Your task to perform on an android device: Clear all items from cart on walmart. Add razer blade to the cart on walmart Image 0: 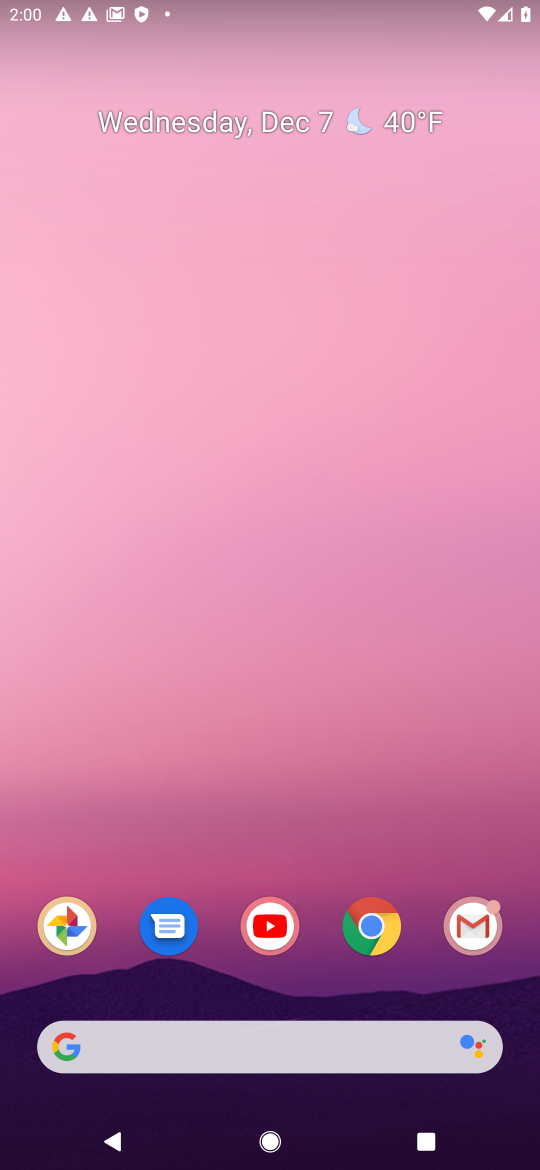
Step 0: drag from (228, 967) to (222, 455)
Your task to perform on an android device: Clear all items from cart on walmart. Add razer blade to the cart on walmart Image 1: 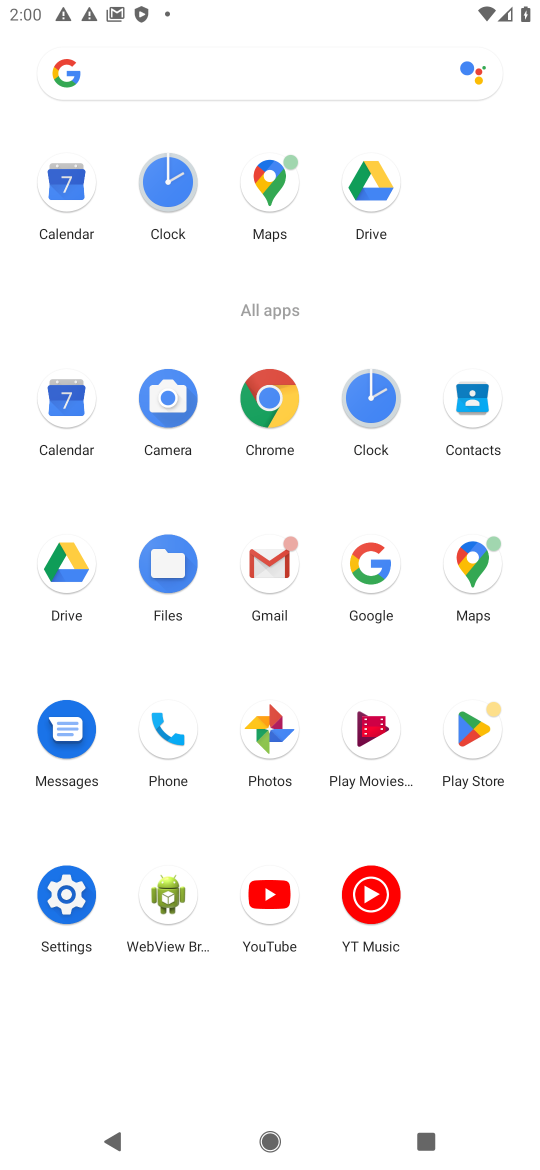
Step 1: click (396, 543)
Your task to perform on an android device: Clear all items from cart on walmart. Add razer blade to the cart on walmart Image 2: 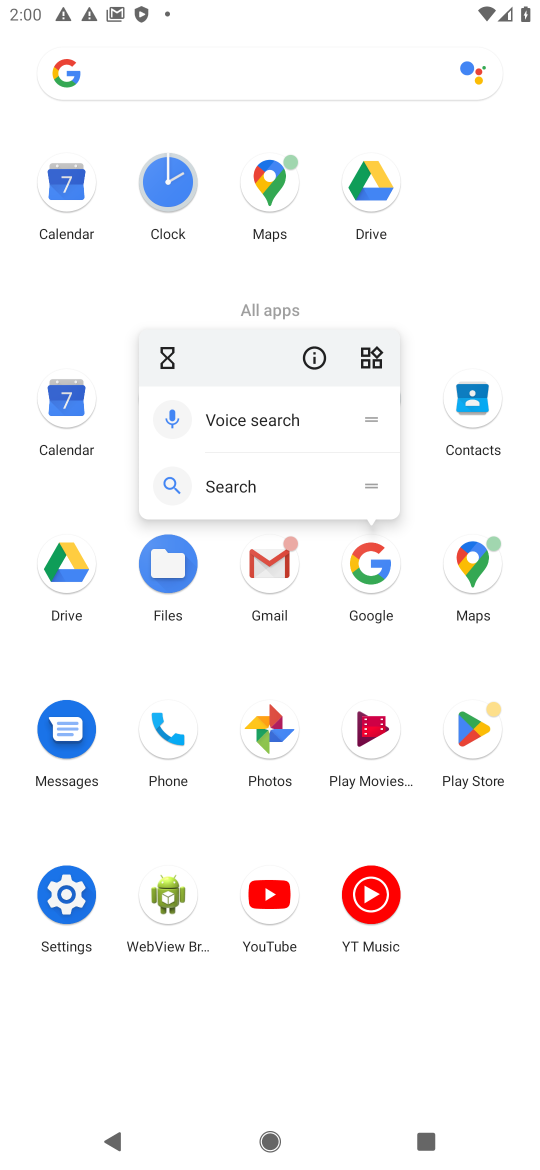
Step 2: click (382, 561)
Your task to perform on an android device: Clear all items from cart on walmart. Add razer blade to the cart on walmart Image 3: 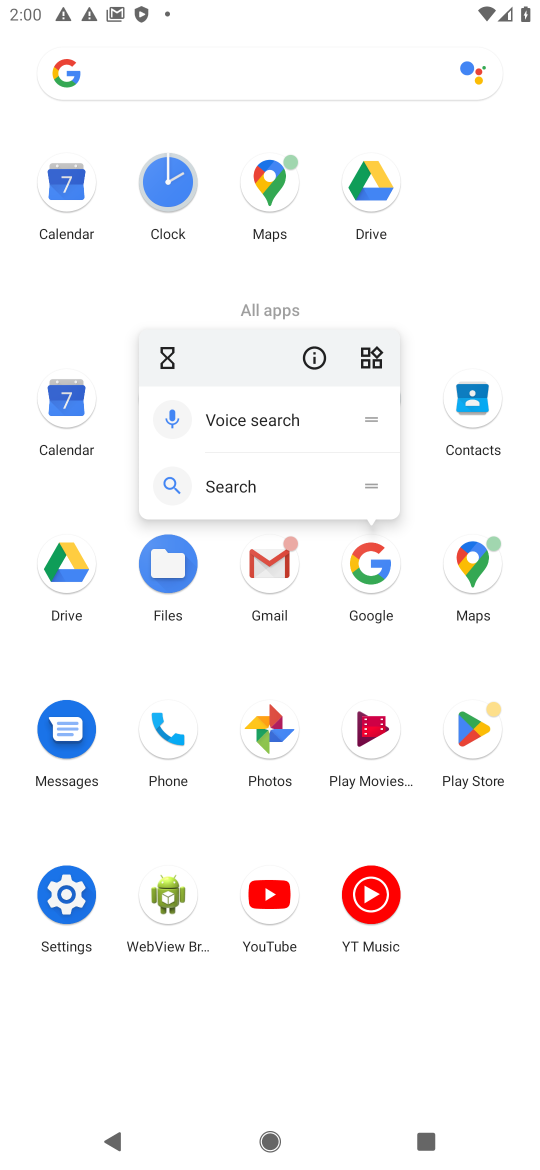
Step 3: click (370, 564)
Your task to perform on an android device: Clear all items from cart on walmart. Add razer blade to the cart on walmart Image 4: 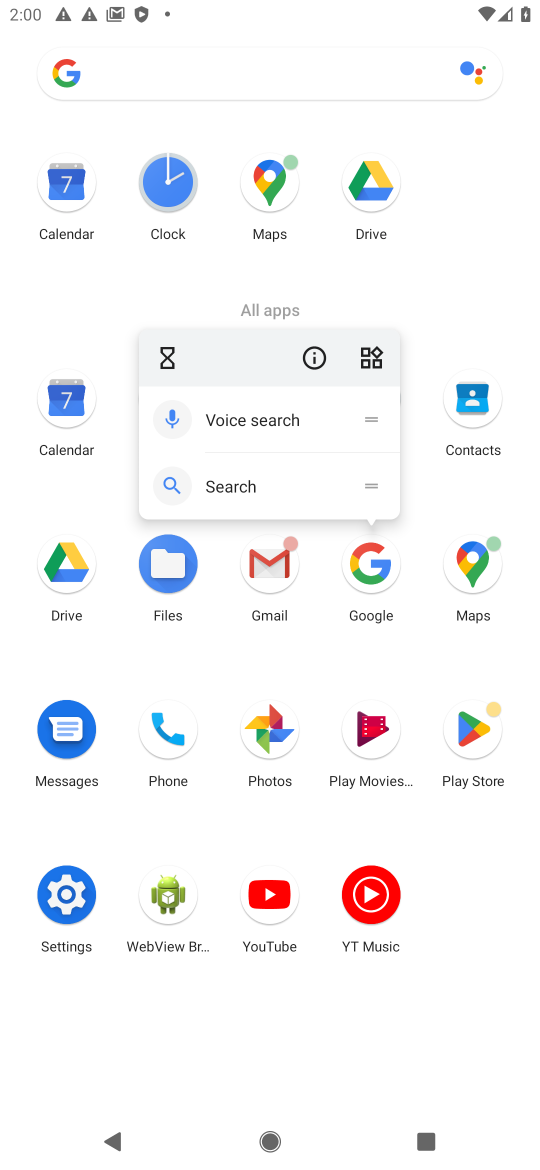
Step 4: click (363, 562)
Your task to perform on an android device: Clear all items from cart on walmart. Add razer blade to the cart on walmart Image 5: 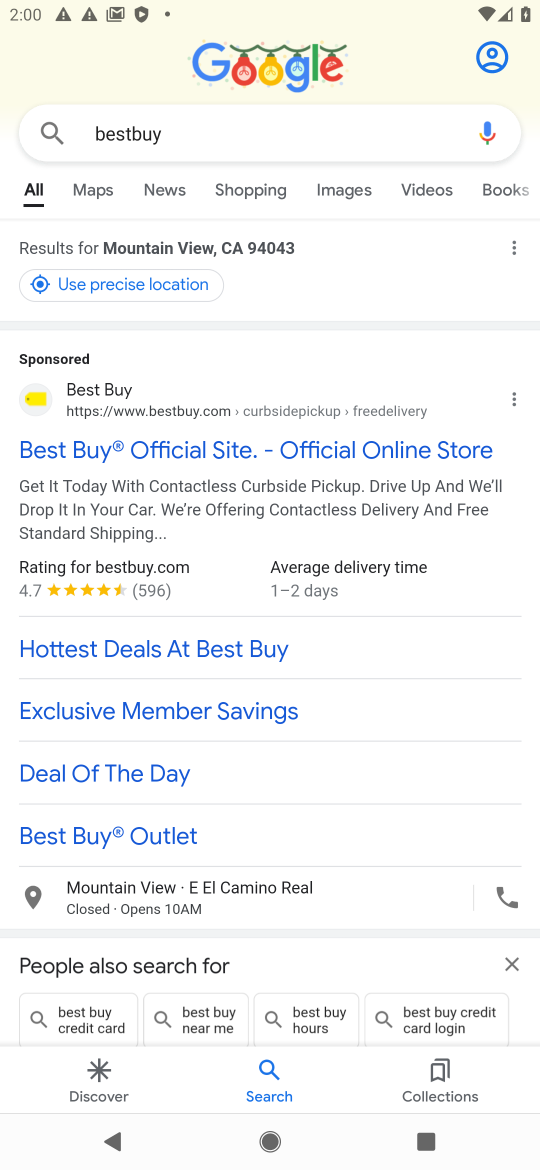
Step 5: click (136, 132)
Your task to perform on an android device: Clear all items from cart on walmart. Add razer blade to the cart on walmart Image 6: 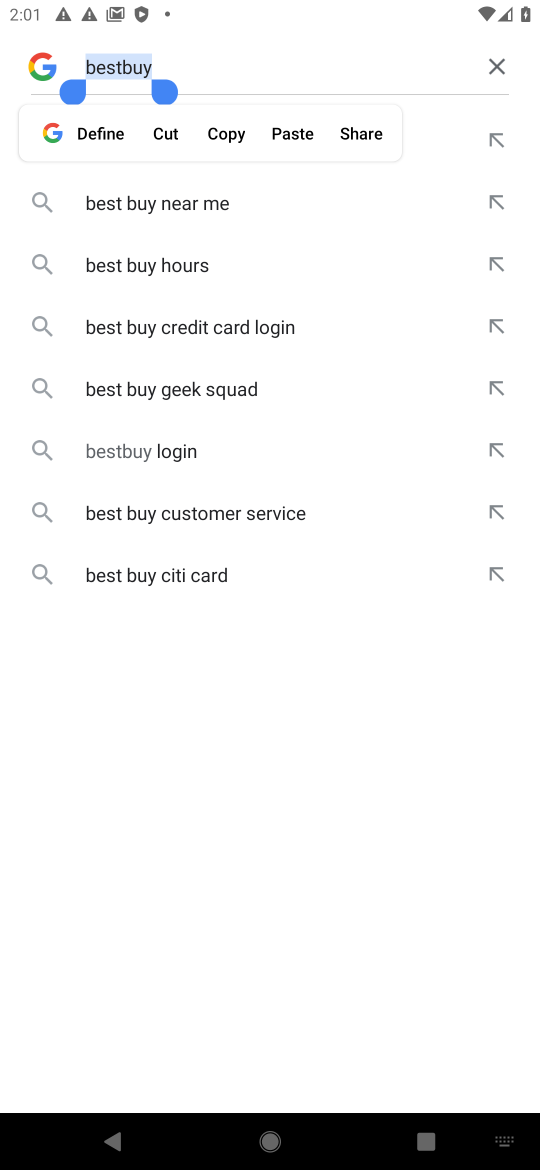
Step 6: click (504, 66)
Your task to perform on an android device: Clear all items from cart on walmart. Add razer blade to the cart on walmart Image 7: 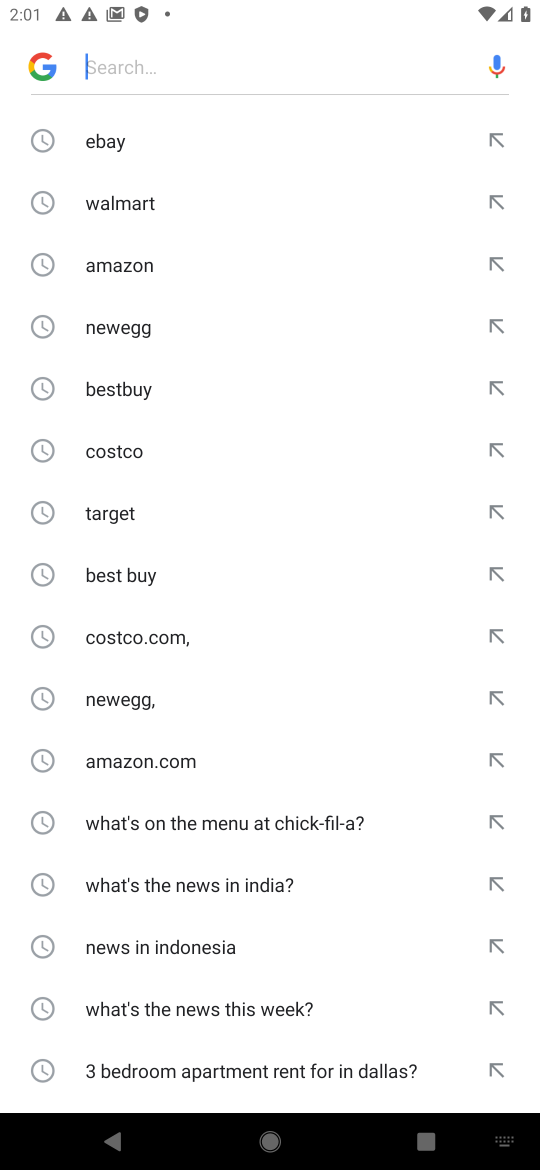
Step 7: click (118, 394)
Your task to perform on an android device: Clear all items from cart on walmart. Add razer blade to the cart on walmart Image 8: 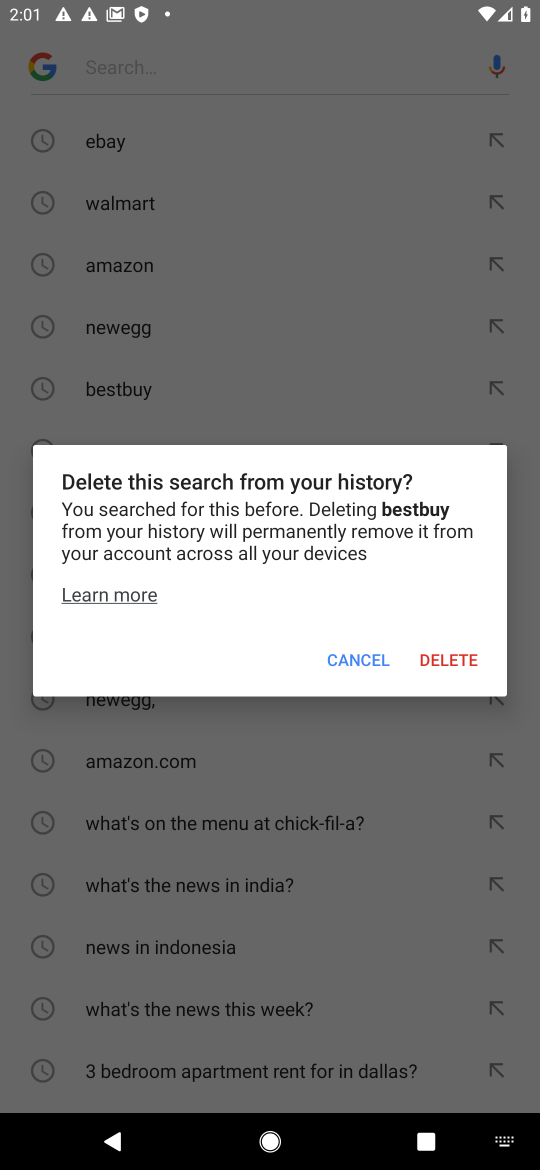
Step 8: click (362, 654)
Your task to perform on an android device: Clear all items from cart on walmart. Add razer blade to the cart on walmart Image 9: 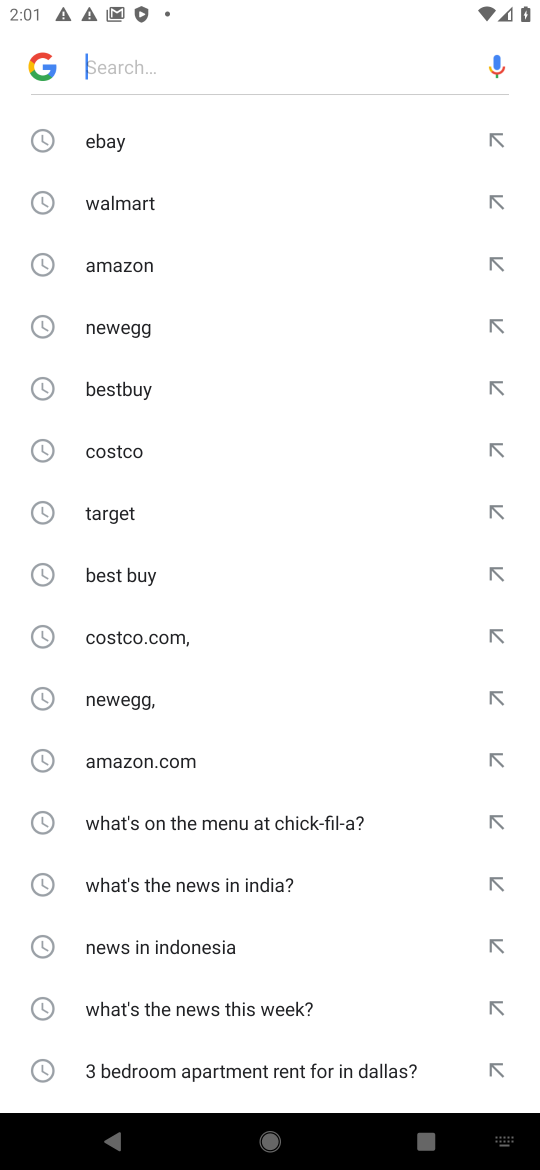
Step 9: click (121, 390)
Your task to perform on an android device: Clear all items from cart on walmart. Add razer blade to the cart on walmart Image 10: 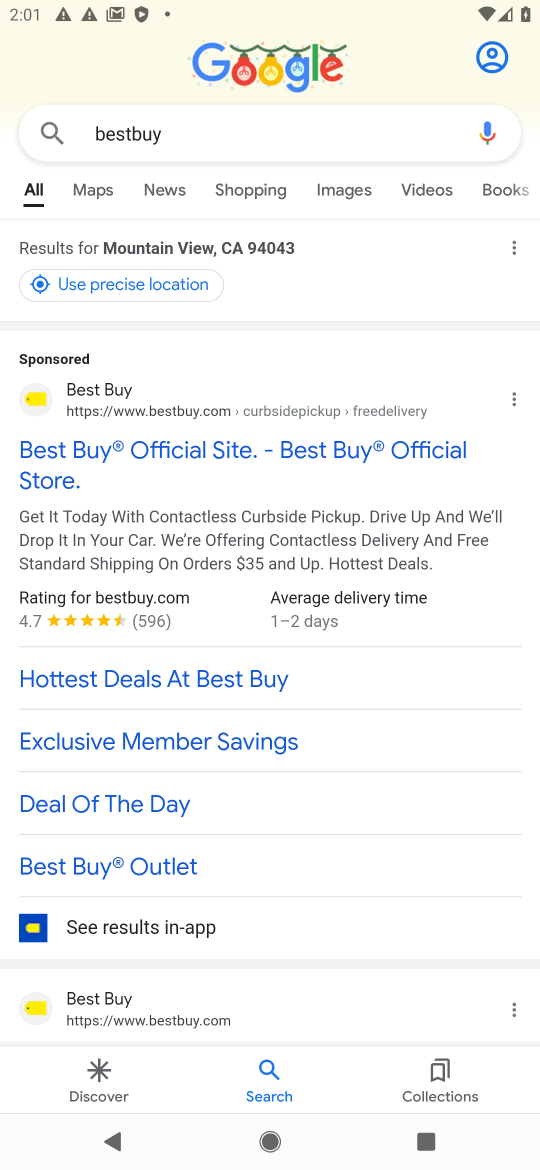
Step 10: click (127, 454)
Your task to perform on an android device: Clear all items from cart on walmart. Add razer blade to the cart on walmart Image 11: 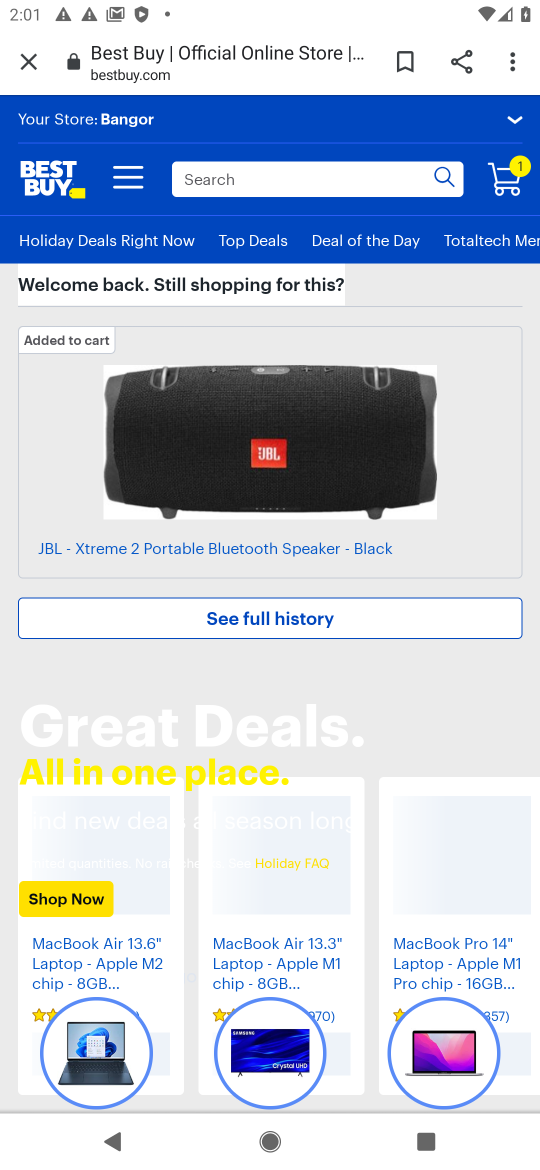
Step 11: click (520, 185)
Your task to perform on an android device: Clear all items from cart on walmart. Add razer blade to the cart on walmart Image 12: 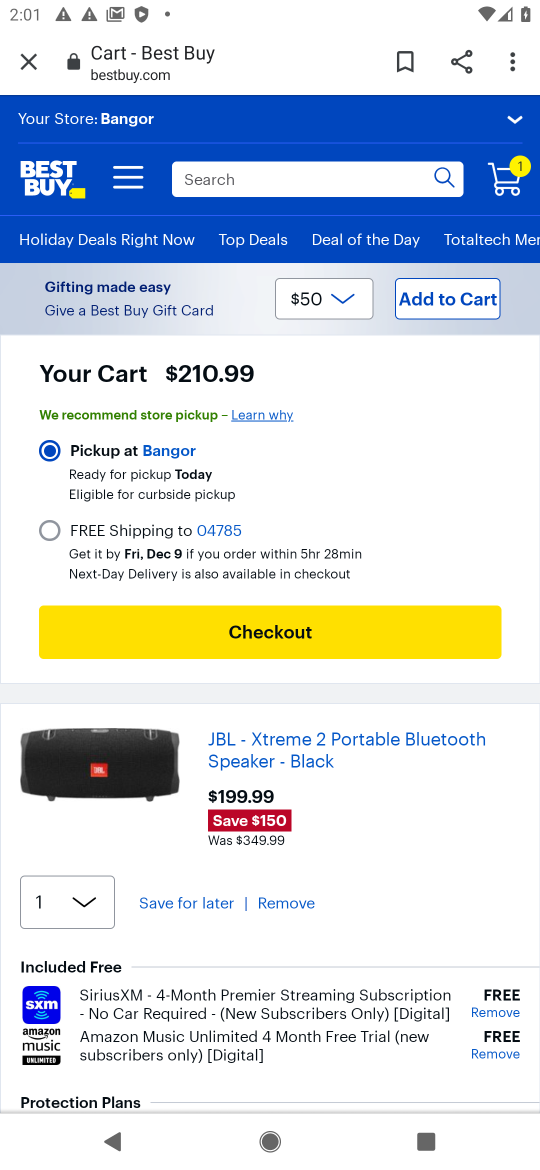
Step 12: click (277, 906)
Your task to perform on an android device: Clear all items from cart on walmart. Add razer blade to the cart on walmart Image 13: 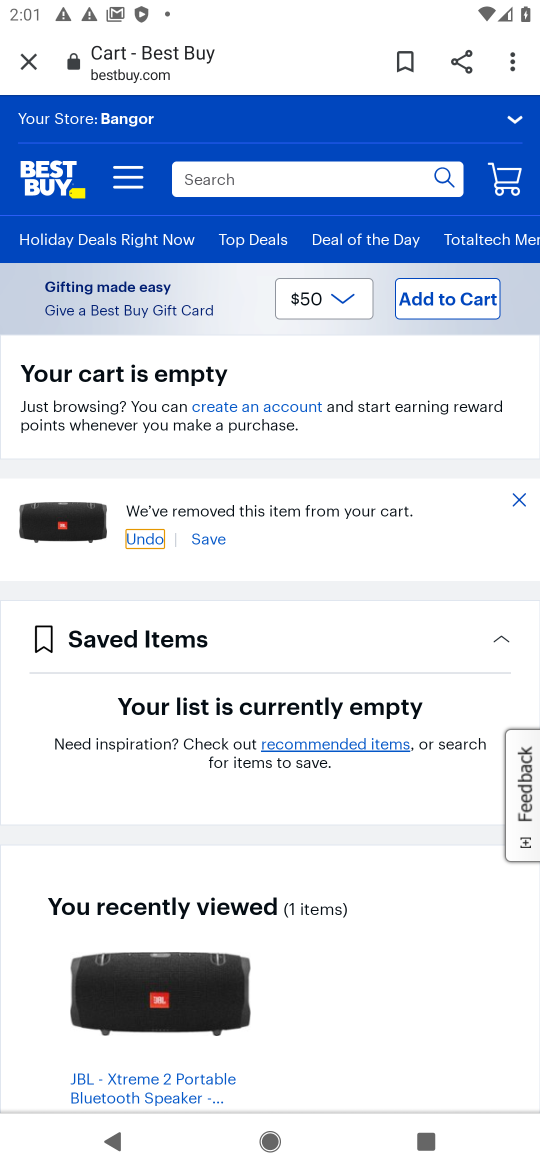
Step 13: click (272, 184)
Your task to perform on an android device: Clear all items from cart on walmart. Add razer blade to the cart on walmart Image 14: 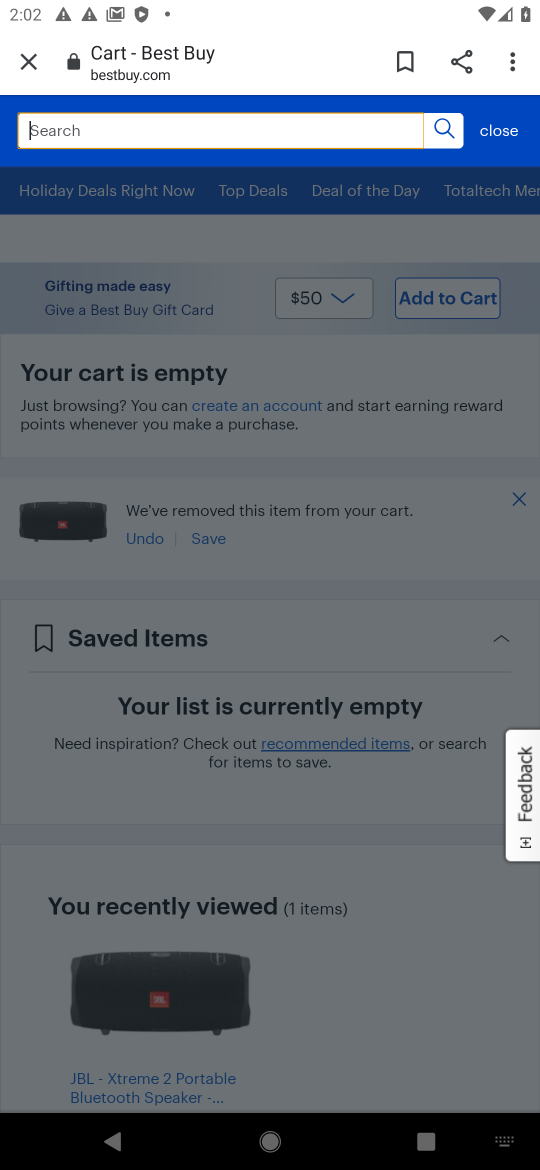
Step 14: type "razer blade"
Your task to perform on an android device: Clear all items from cart on walmart. Add razer blade to the cart on walmart Image 15: 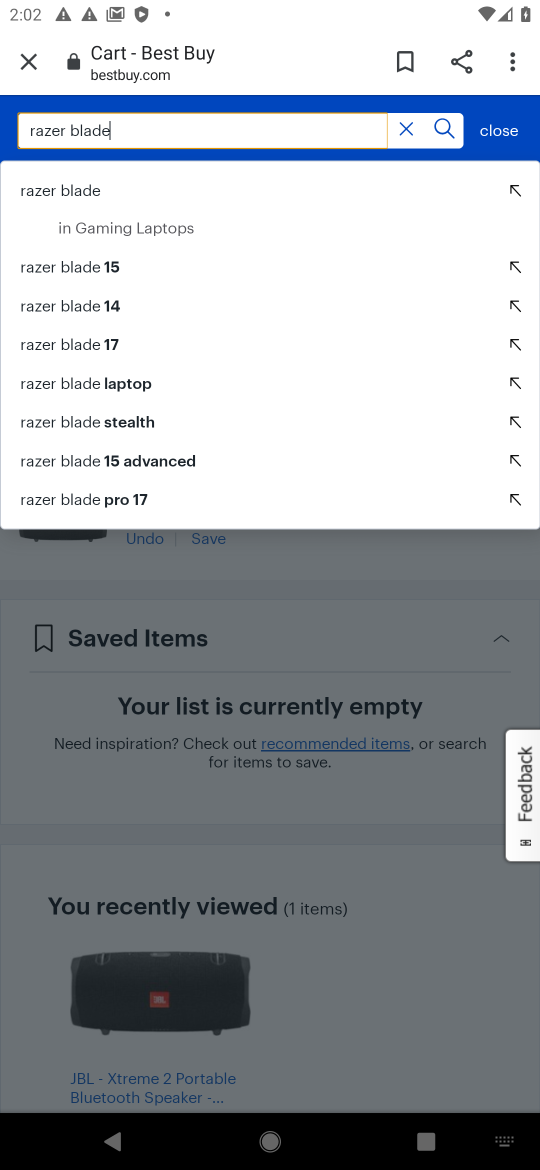
Step 15: click (54, 187)
Your task to perform on an android device: Clear all items from cart on walmart. Add razer blade to the cart on walmart Image 16: 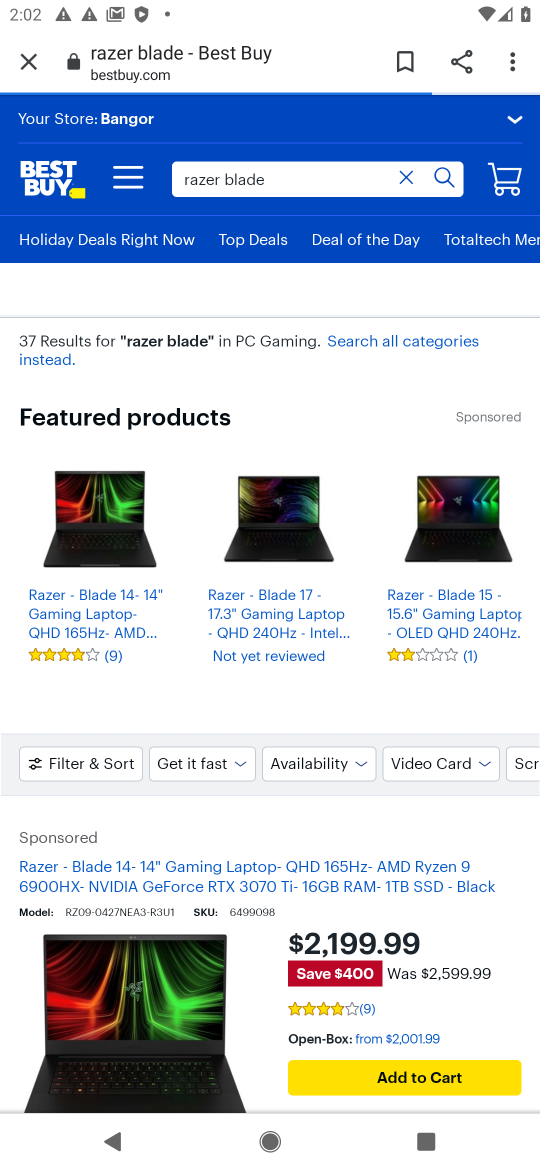
Step 16: drag from (258, 826) to (279, 424)
Your task to perform on an android device: Clear all items from cart on walmart. Add razer blade to the cart on walmart Image 17: 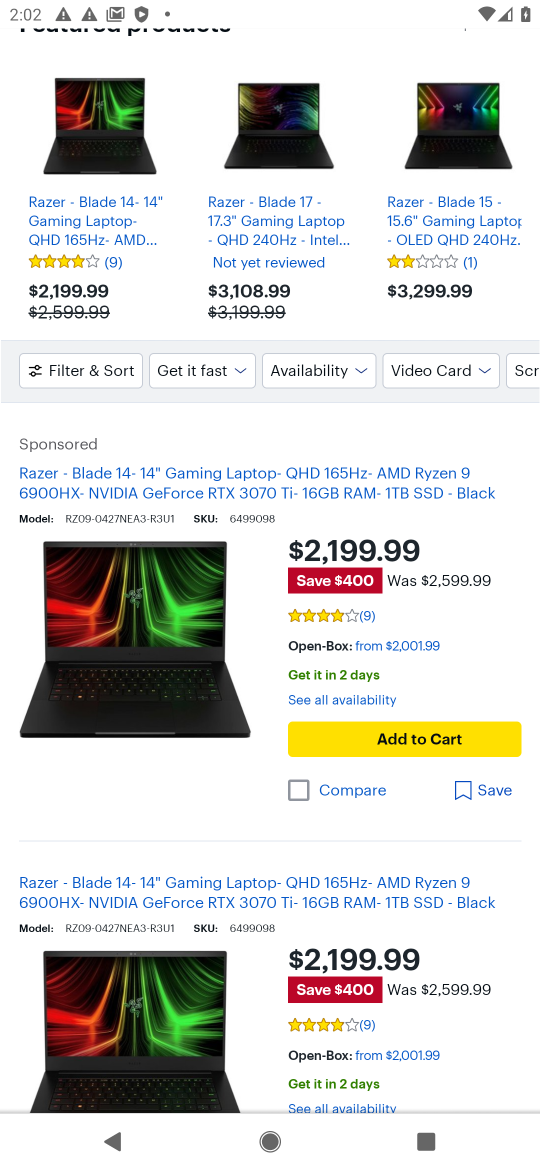
Step 17: click (415, 682)
Your task to perform on an android device: Clear all items from cart on walmart. Add razer blade to the cart on walmart Image 18: 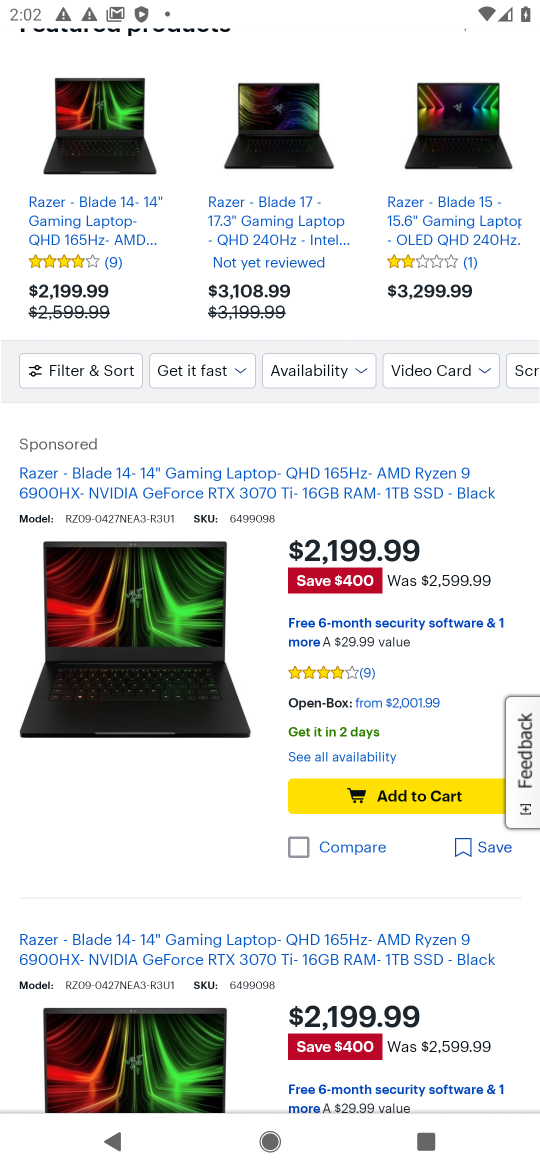
Step 18: click (375, 790)
Your task to perform on an android device: Clear all items from cart on walmart. Add razer blade to the cart on walmart Image 19: 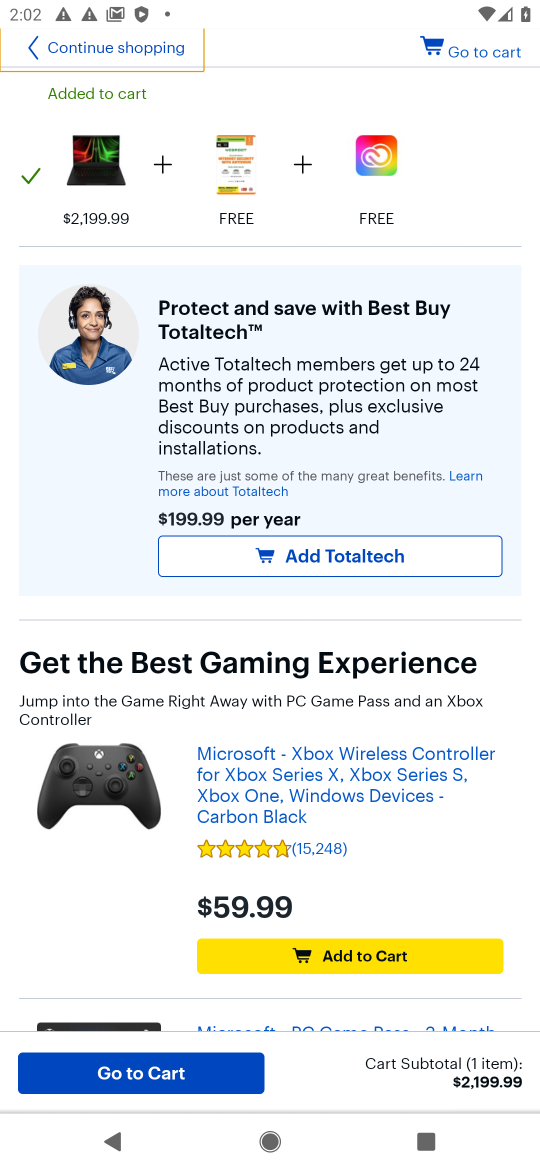
Step 19: task complete